Your task to perform on an android device: open wifi settings Image 0: 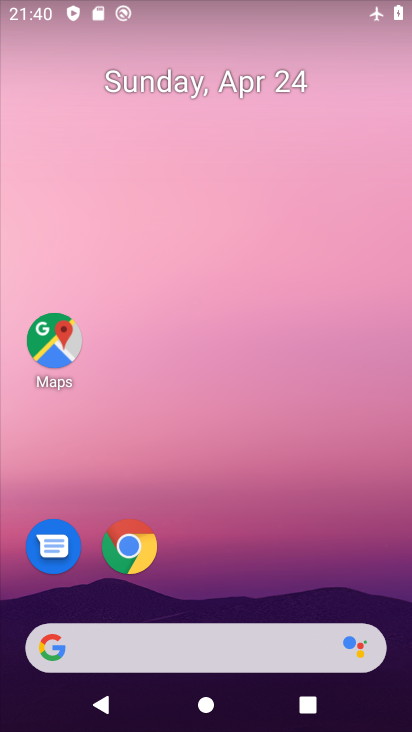
Step 0: drag from (321, 595) to (311, 271)
Your task to perform on an android device: open wifi settings Image 1: 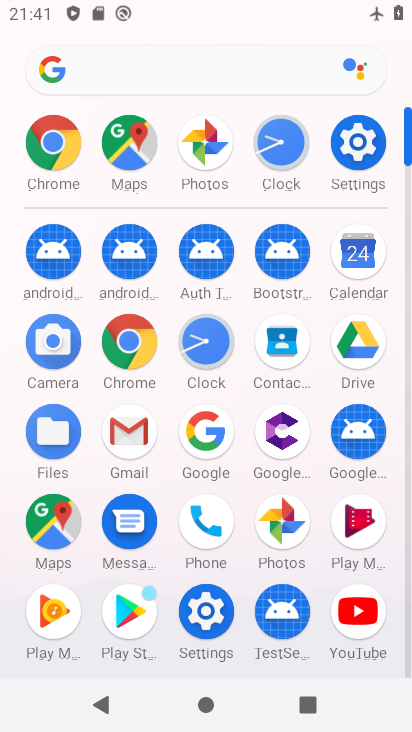
Step 1: click (351, 141)
Your task to perform on an android device: open wifi settings Image 2: 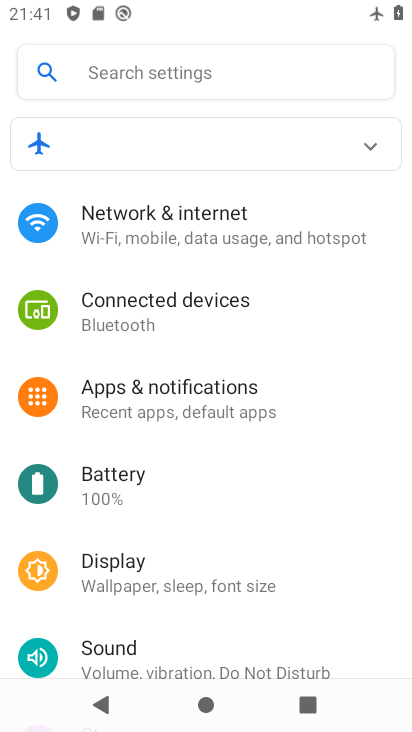
Step 2: click (219, 219)
Your task to perform on an android device: open wifi settings Image 3: 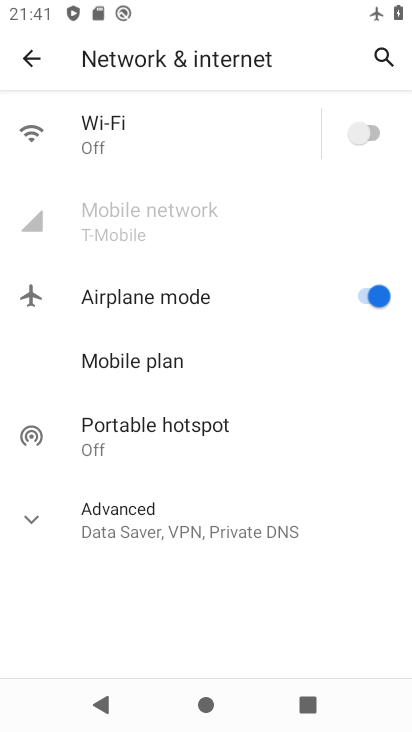
Step 3: click (376, 131)
Your task to perform on an android device: open wifi settings Image 4: 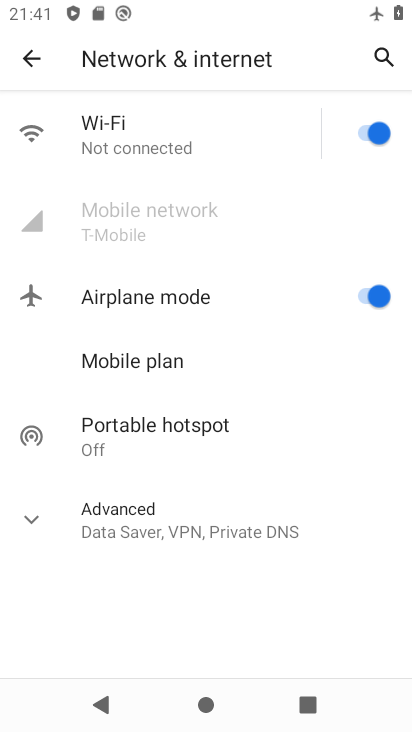
Step 4: click (201, 123)
Your task to perform on an android device: open wifi settings Image 5: 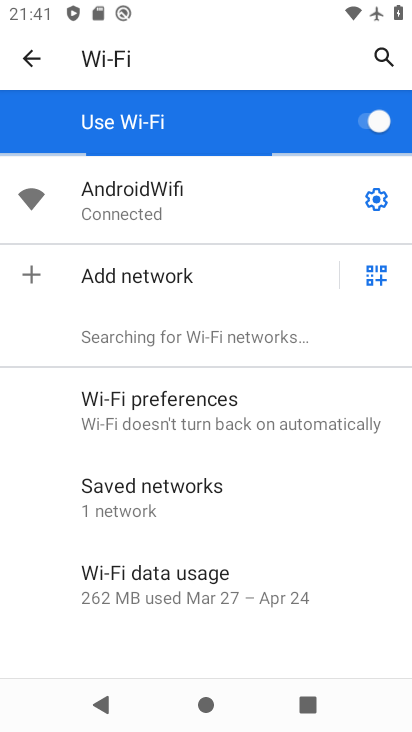
Step 5: click (360, 127)
Your task to perform on an android device: open wifi settings Image 6: 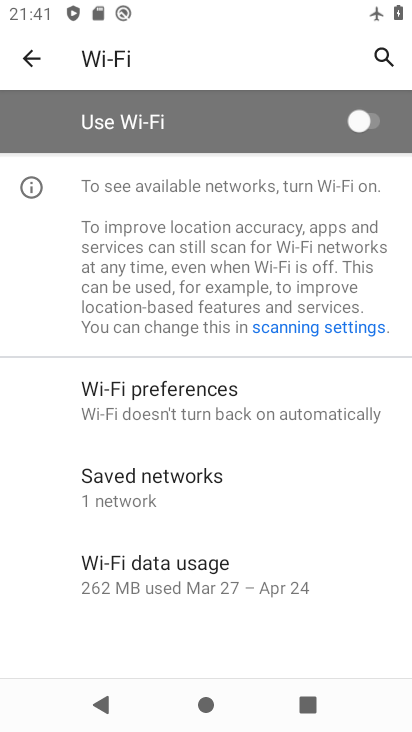
Step 6: task complete